Your task to perform on an android device: Go to location settings Image 0: 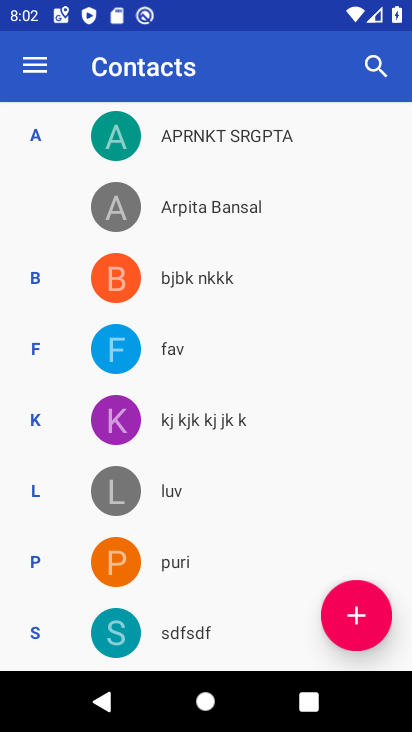
Step 0: press home button
Your task to perform on an android device: Go to location settings Image 1: 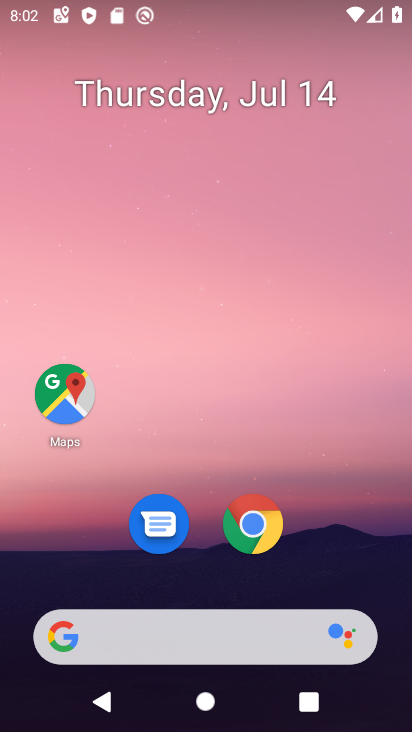
Step 1: drag from (318, 572) to (278, 77)
Your task to perform on an android device: Go to location settings Image 2: 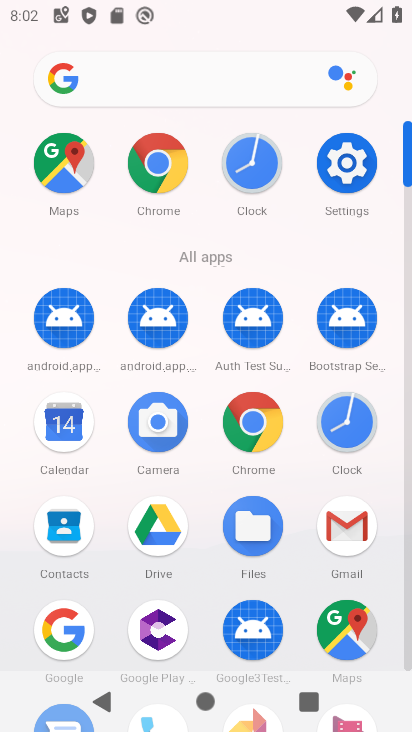
Step 2: click (346, 171)
Your task to perform on an android device: Go to location settings Image 3: 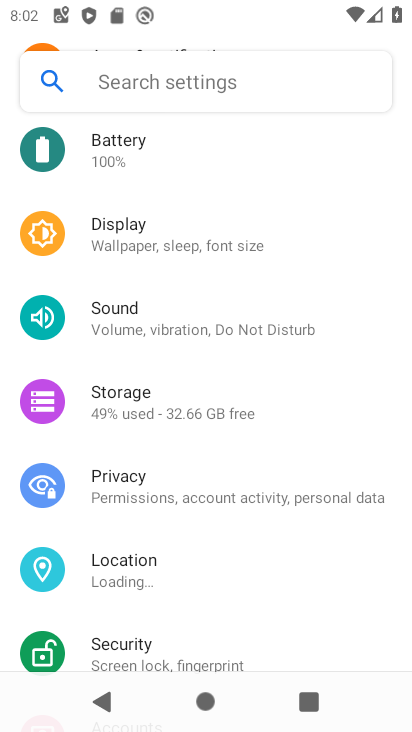
Step 3: click (121, 572)
Your task to perform on an android device: Go to location settings Image 4: 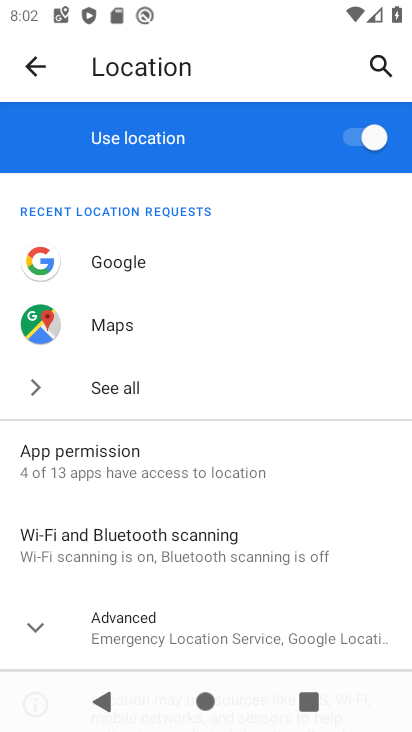
Step 4: task complete